Your task to perform on an android device: Search for Mexican restaurants on Maps Image 0: 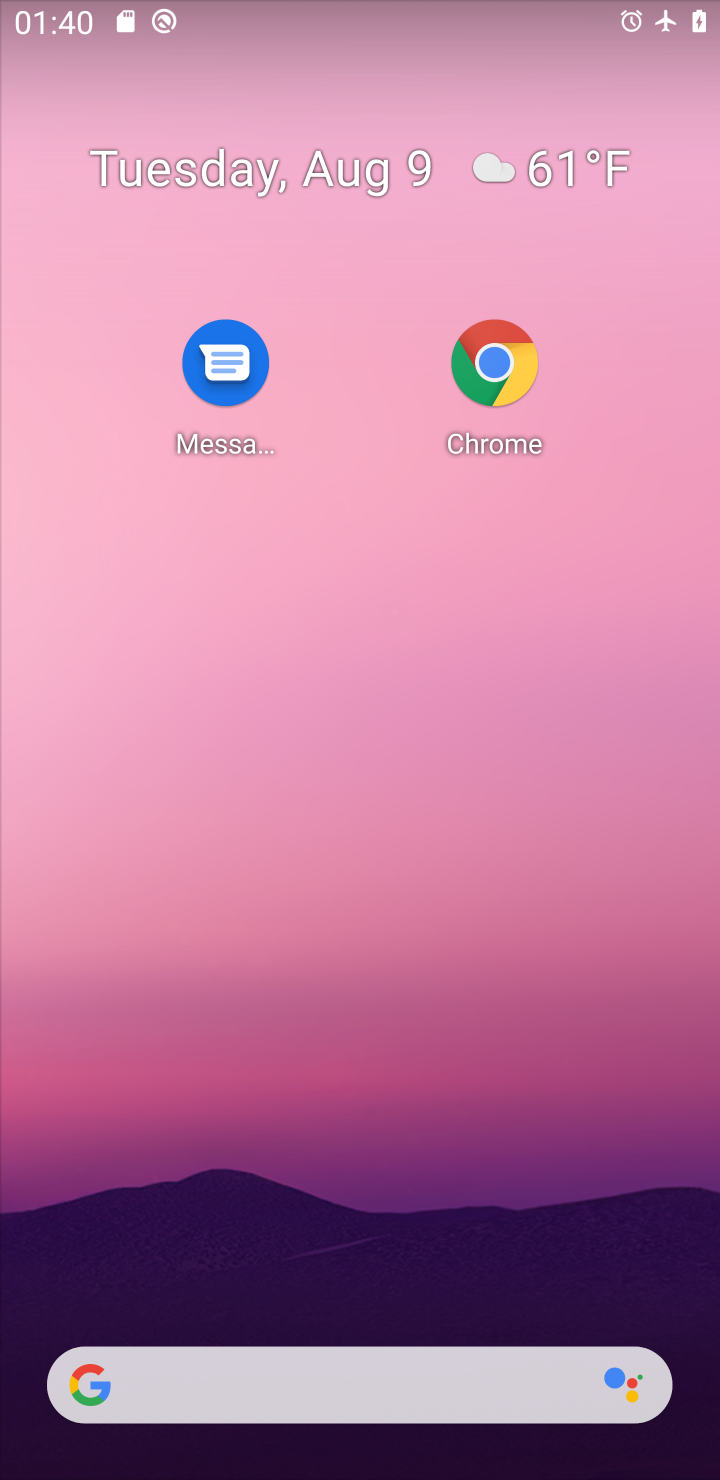
Step 0: press home button
Your task to perform on an android device: Search for Mexican restaurants on Maps Image 1: 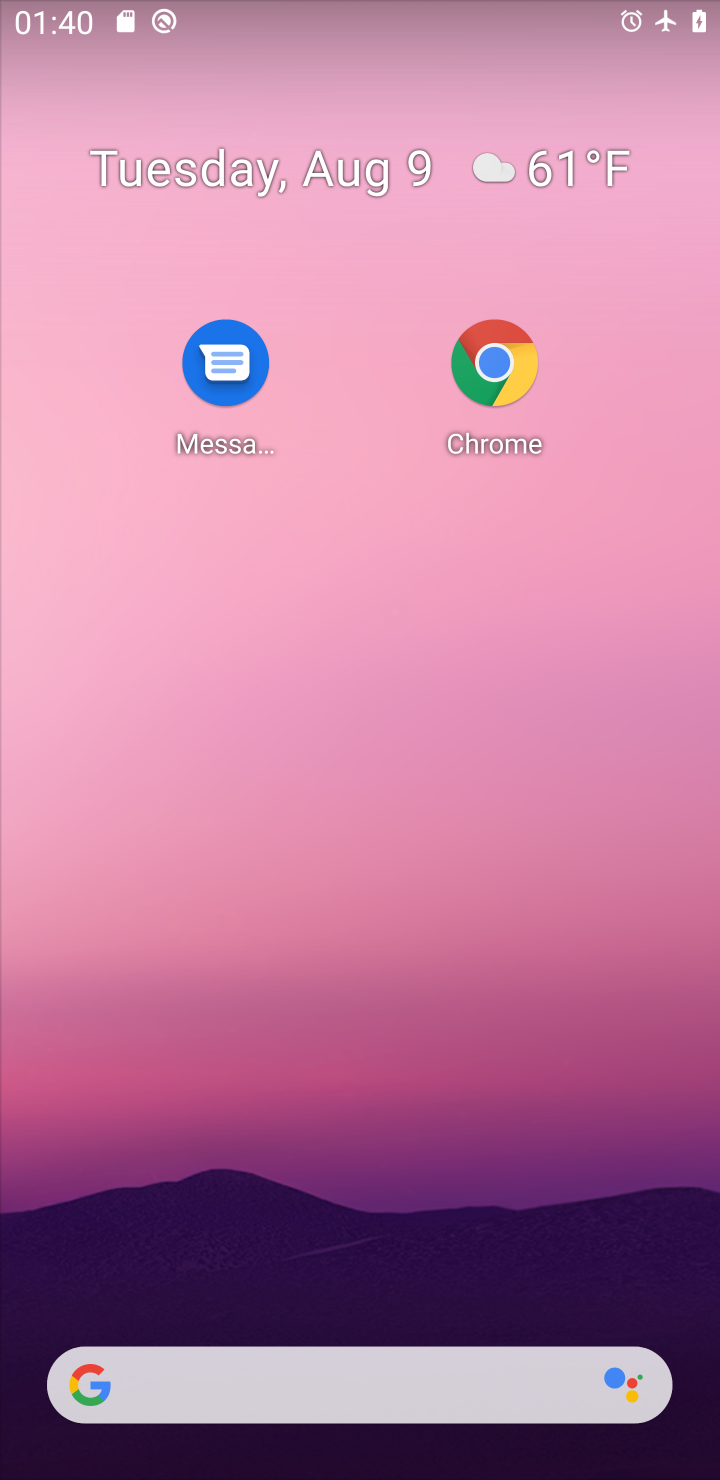
Step 1: drag from (385, 1007) to (517, 445)
Your task to perform on an android device: Search for Mexican restaurants on Maps Image 2: 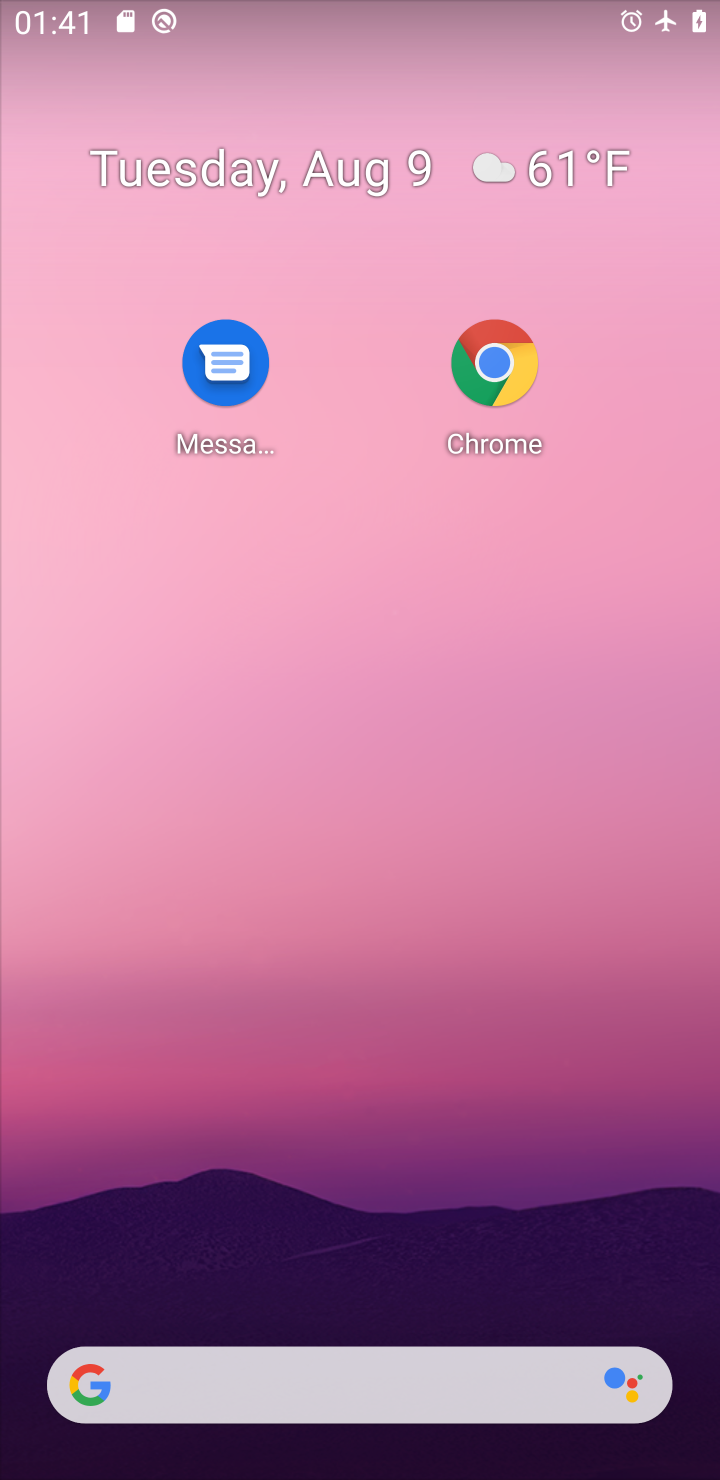
Step 2: drag from (293, 1174) to (328, 440)
Your task to perform on an android device: Search for Mexican restaurants on Maps Image 3: 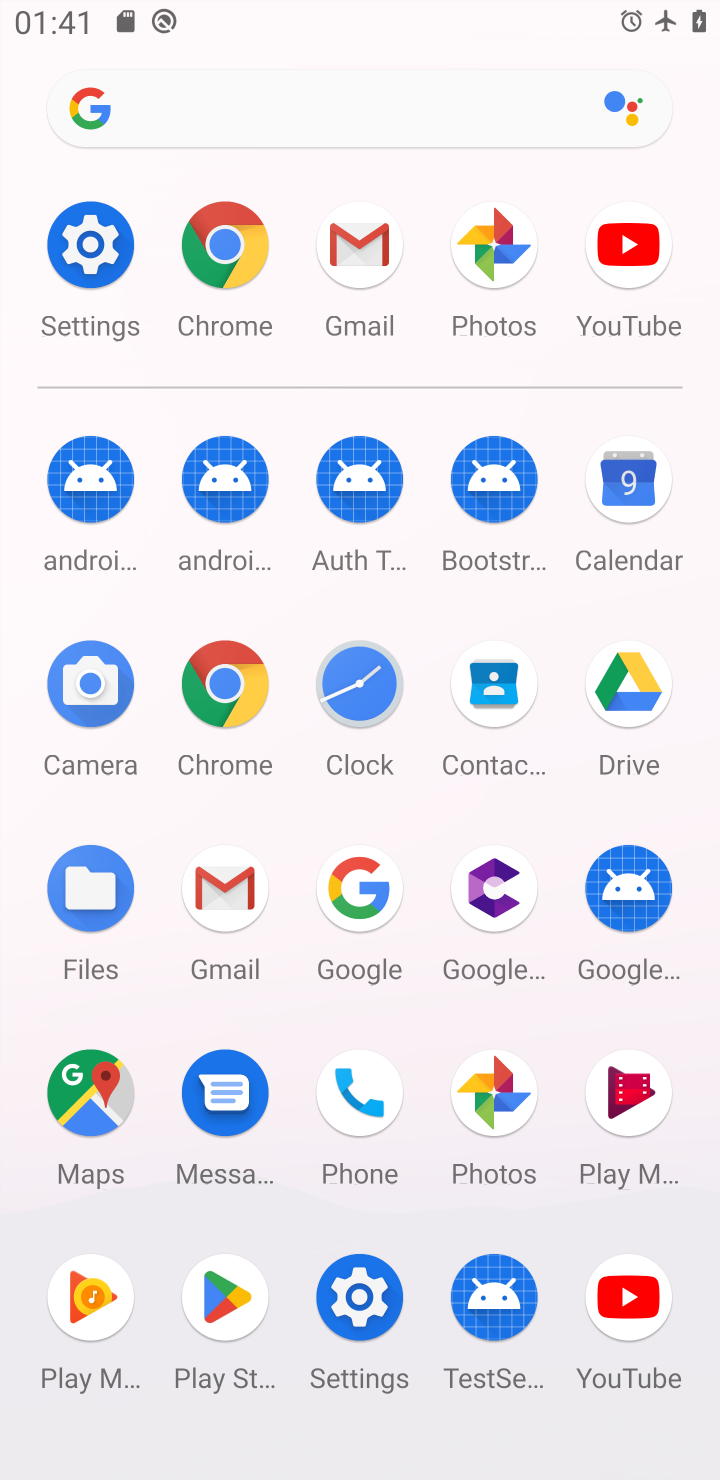
Step 3: click (110, 1076)
Your task to perform on an android device: Search for Mexican restaurants on Maps Image 4: 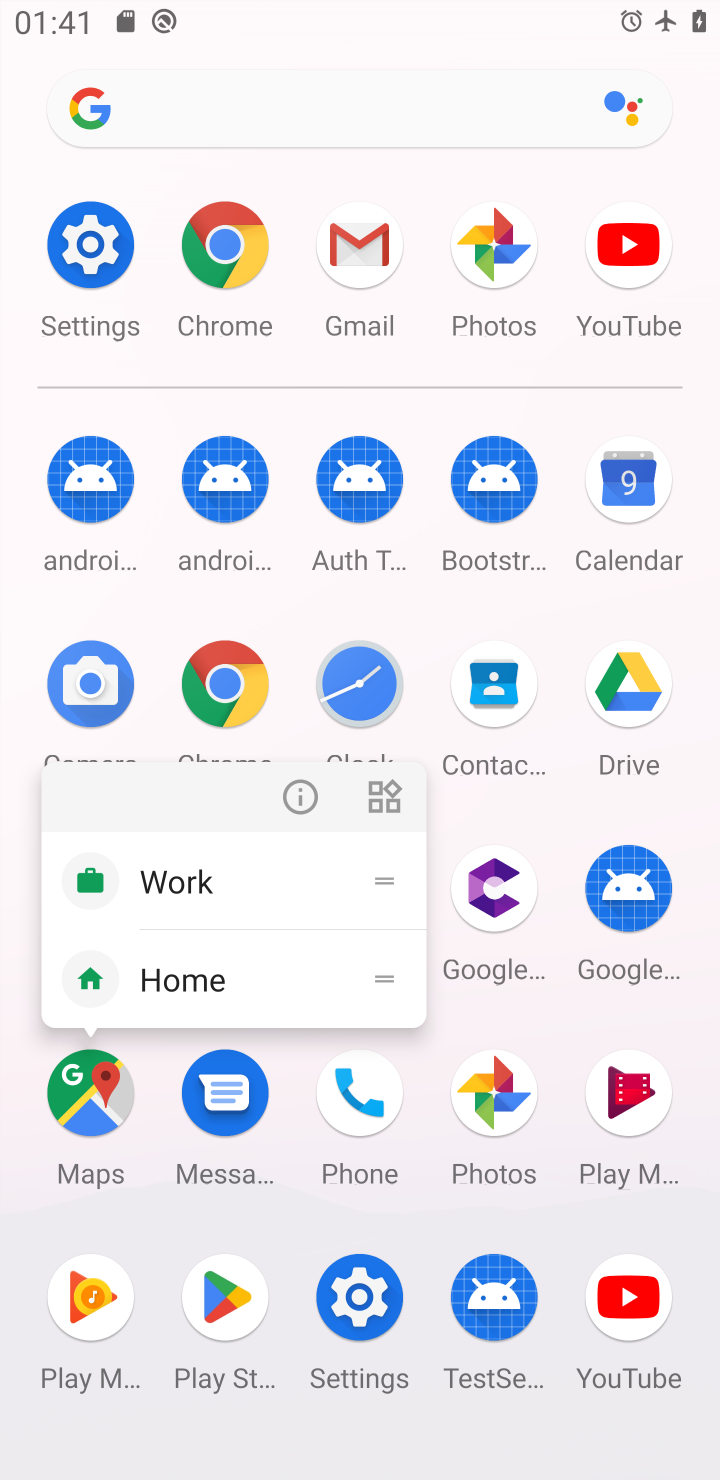
Step 4: click (104, 1104)
Your task to perform on an android device: Search for Mexican restaurants on Maps Image 5: 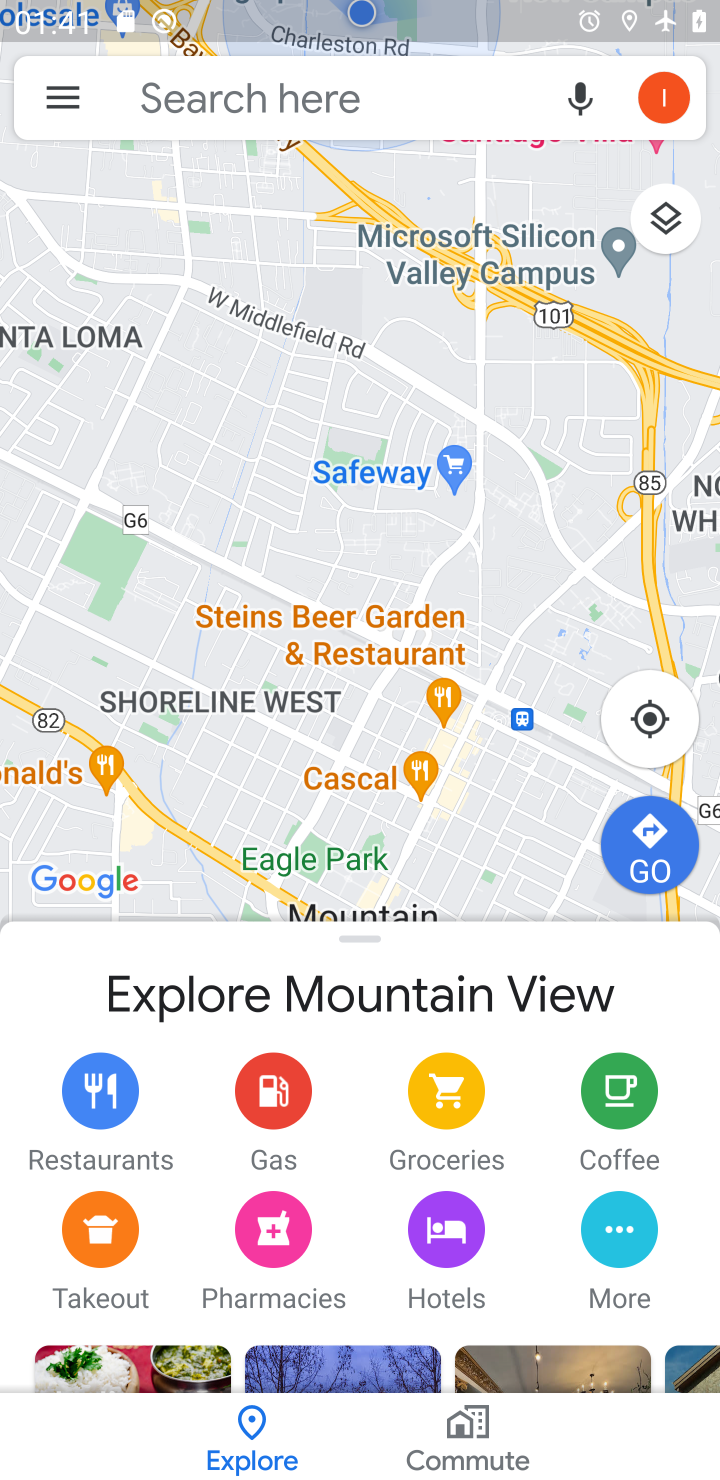
Step 5: click (245, 85)
Your task to perform on an android device: Search for Mexican restaurants on Maps Image 6: 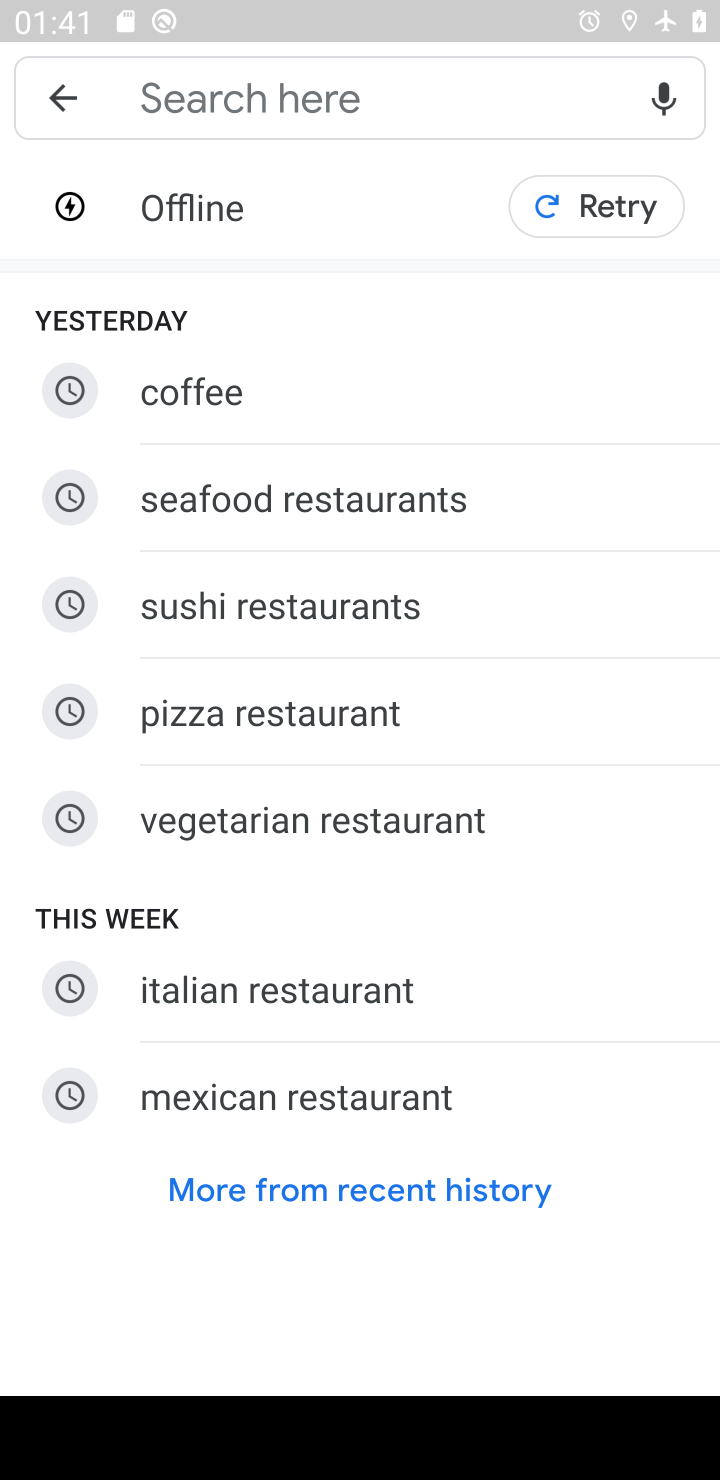
Step 6: click (287, 1071)
Your task to perform on an android device: Search for Mexican restaurants on Maps Image 7: 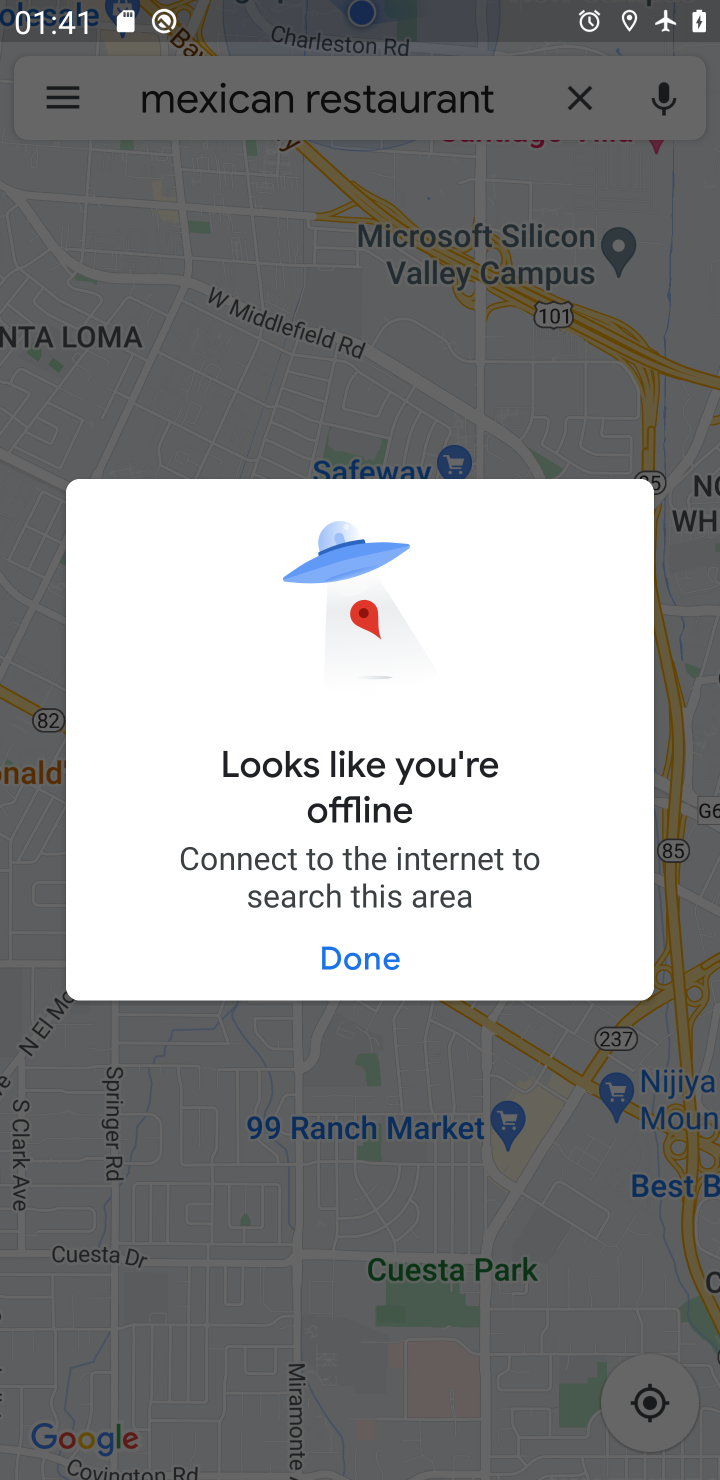
Step 7: task complete